Your task to perform on an android device: Go to Yahoo.com Image 0: 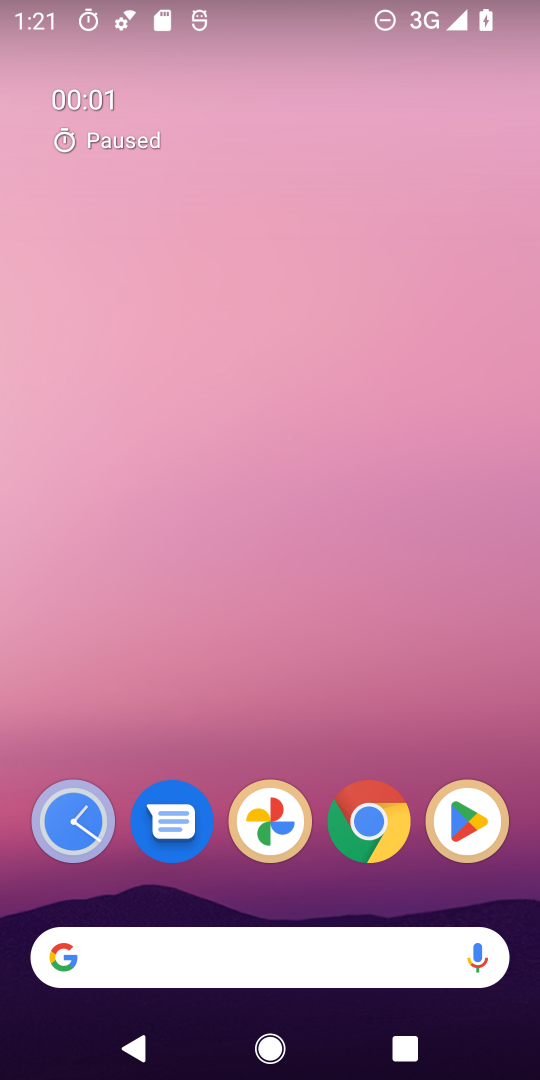
Step 0: drag from (469, 875) to (307, 46)
Your task to perform on an android device: Go to Yahoo.com Image 1: 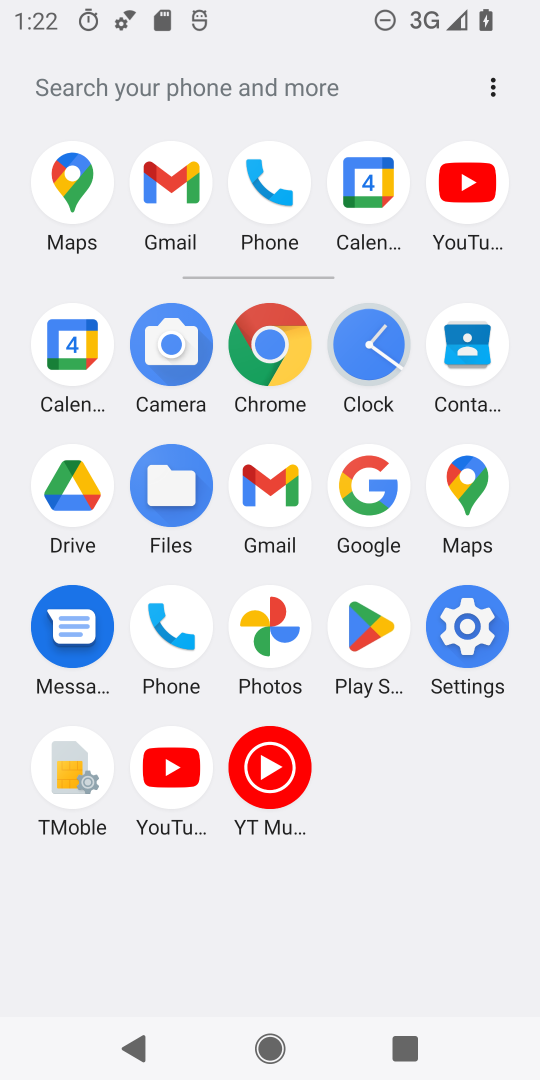
Step 1: click (378, 495)
Your task to perform on an android device: Go to Yahoo.com Image 2: 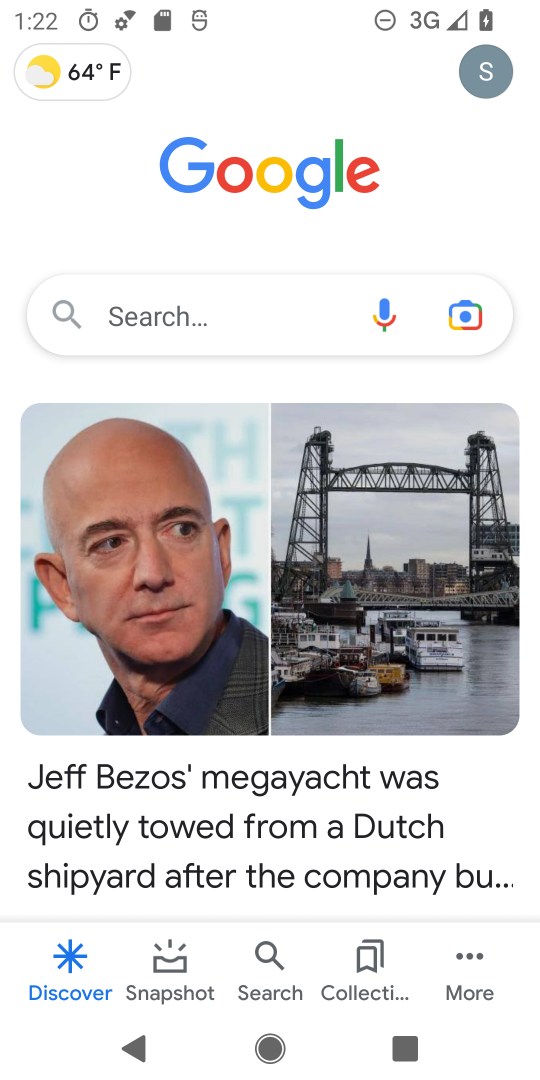
Step 2: click (182, 298)
Your task to perform on an android device: Go to Yahoo.com Image 3: 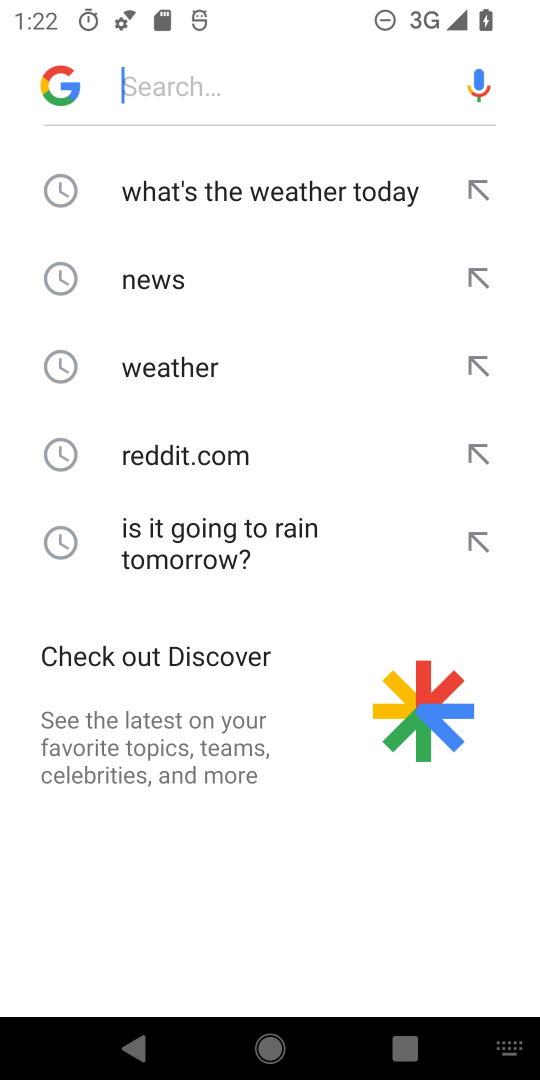
Step 3: type "Yahoo.com"
Your task to perform on an android device: Go to Yahoo.com Image 4: 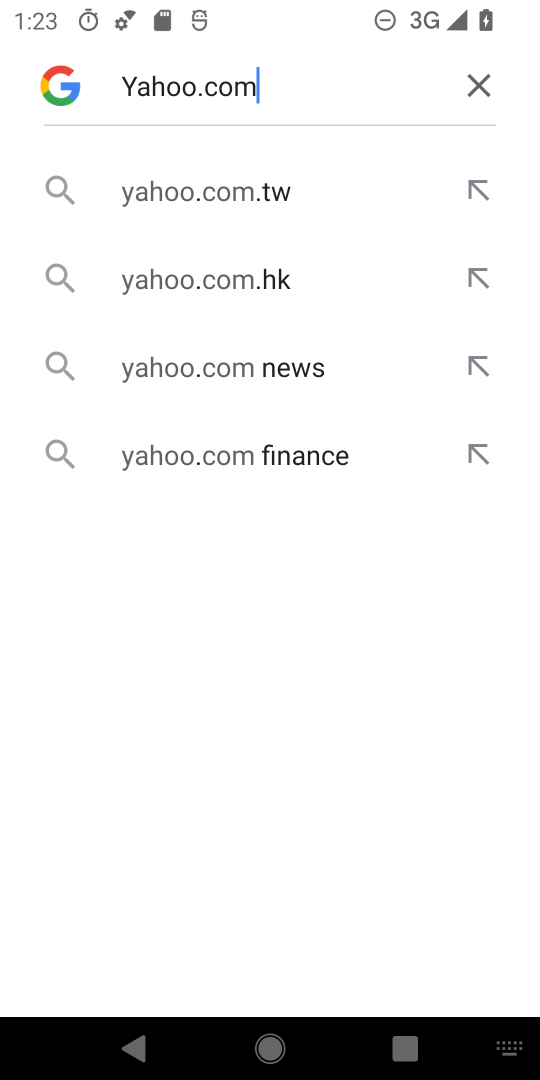
Step 4: task complete